Your task to perform on an android device: turn off picture-in-picture Image 0: 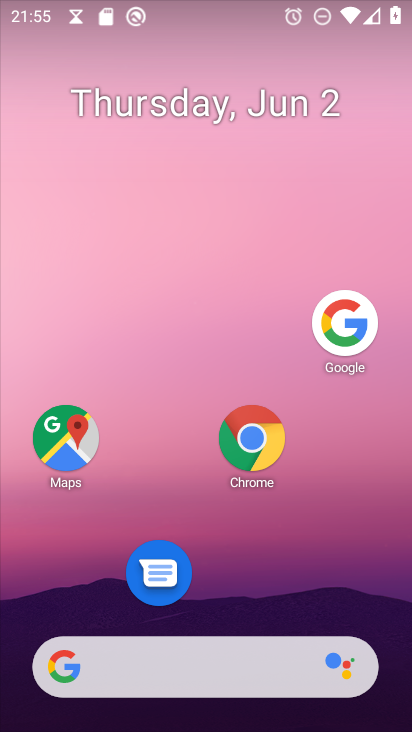
Step 0: press home button
Your task to perform on an android device: turn off picture-in-picture Image 1: 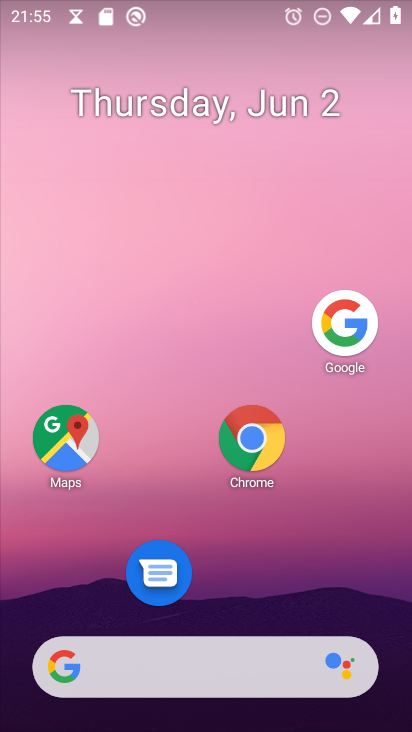
Step 1: drag from (252, 445) to (263, 206)
Your task to perform on an android device: turn off picture-in-picture Image 2: 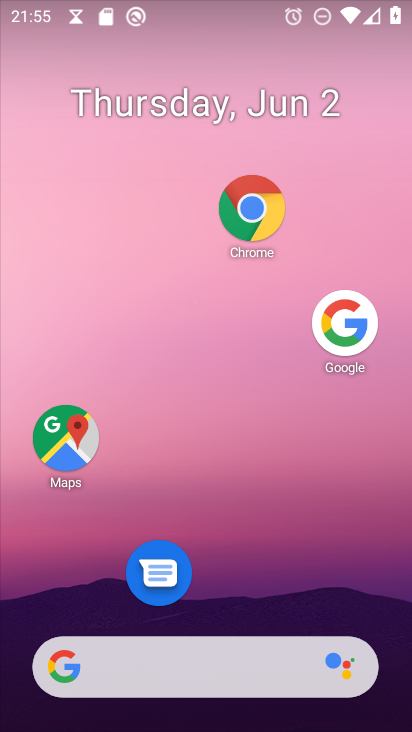
Step 2: drag from (263, 208) to (254, 480)
Your task to perform on an android device: turn off picture-in-picture Image 3: 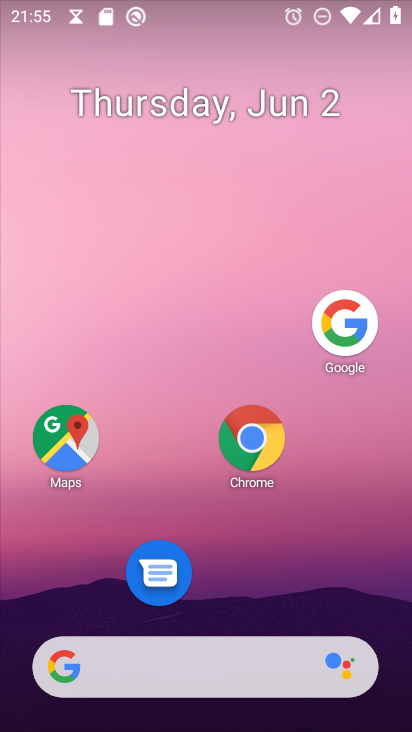
Step 3: click (246, 418)
Your task to perform on an android device: turn off picture-in-picture Image 4: 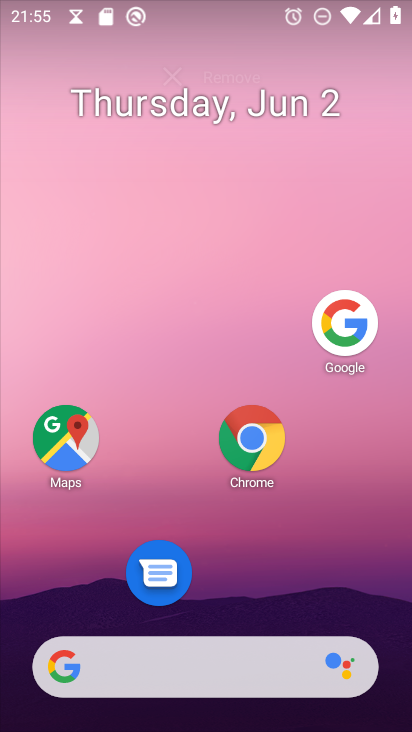
Step 4: click (254, 207)
Your task to perform on an android device: turn off picture-in-picture Image 5: 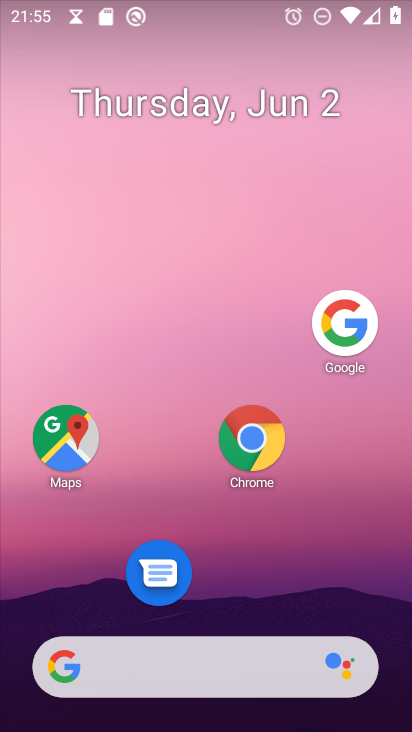
Step 5: click (251, 419)
Your task to perform on an android device: turn off picture-in-picture Image 6: 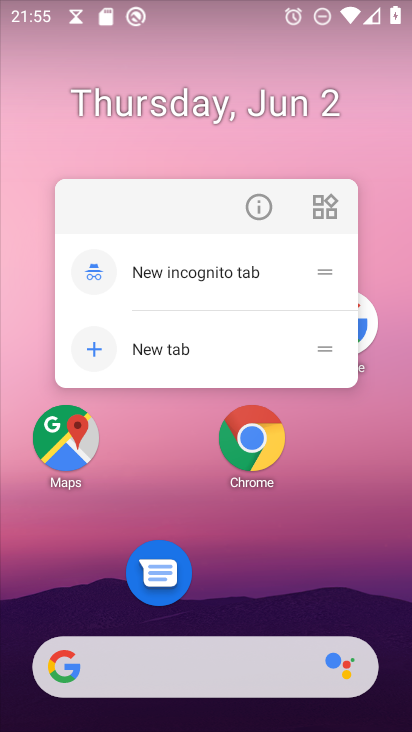
Step 6: click (260, 202)
Your task to perform on an android device: turn off picture-in-picture Image 7: 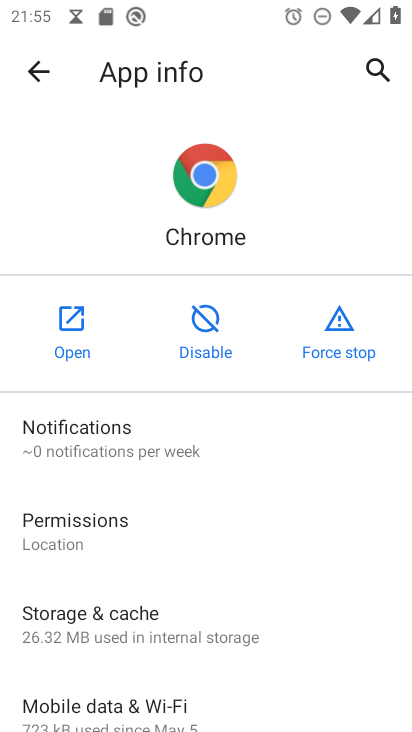
Step 7: drag from (197, 644) to (315, 184)
Your task to perform on an android device: turn off picture-in-picture Image 8: 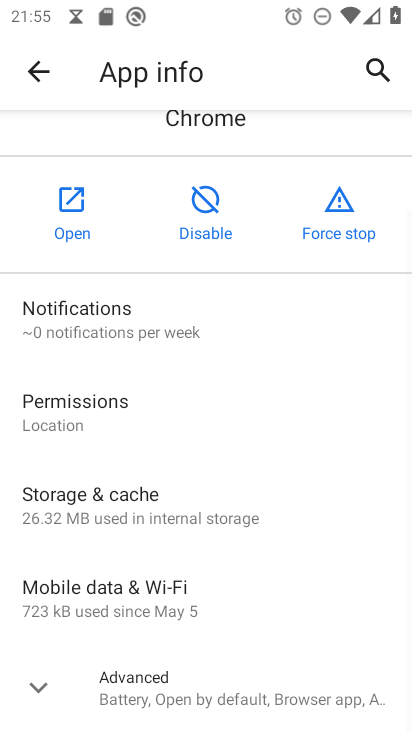
Step 8: click (155, 679)
Your task to perform on an android device: turn off picture-in-picture Image 9: 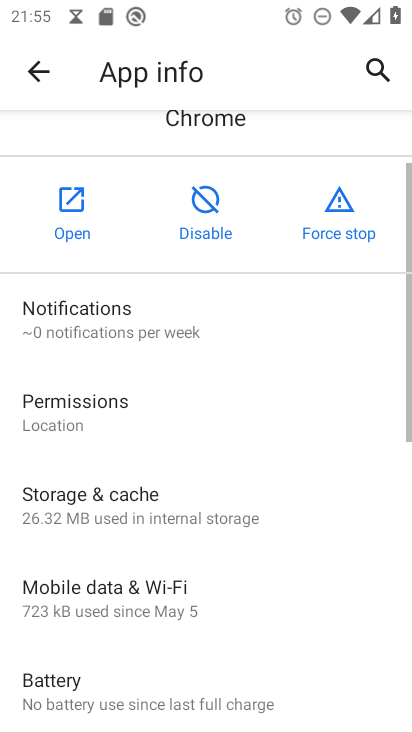
Step 9: drag from (174, 660) to (258, 93)
Your task to perform on an android device: turn off picture-in-picture Image 10: 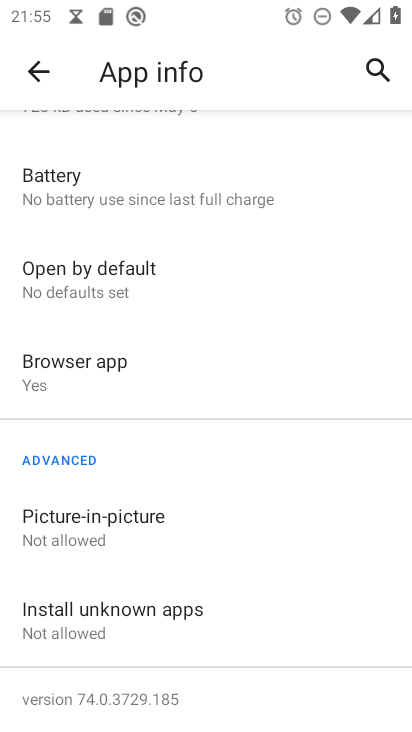
Step 10: click (97, 523)
Your task to perform on an android device: turn off picture-in-picture Image 11: 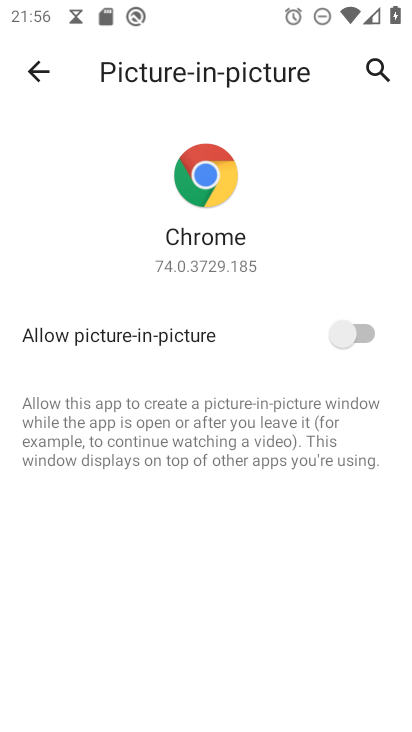
Step 11: task complete